Your task to perform on an android device: Go to notification settings Image 0: 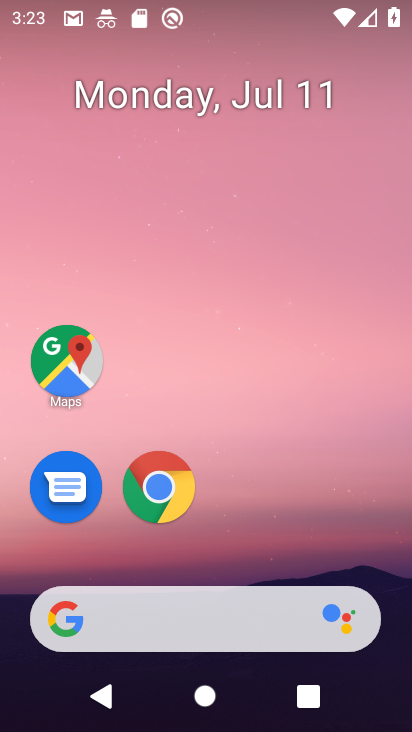
Step 0: drag from (179, 592) to (327, 51)
Your task to perform on an android device: Go to notification settings Image 1: 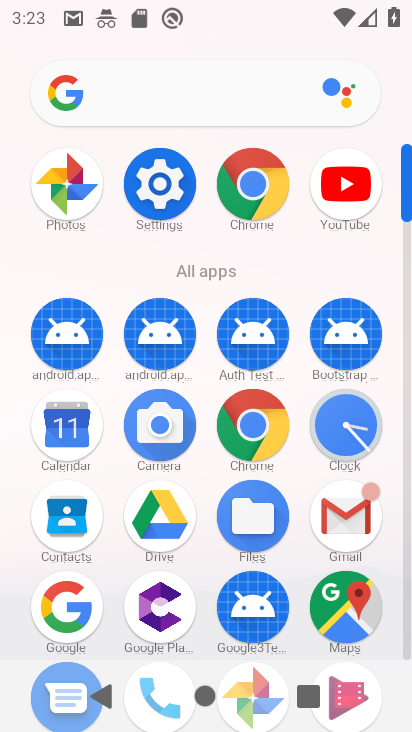
Step 1: click (164, 197)
Your task to perform on an android device: Go to notification settings Image 2: 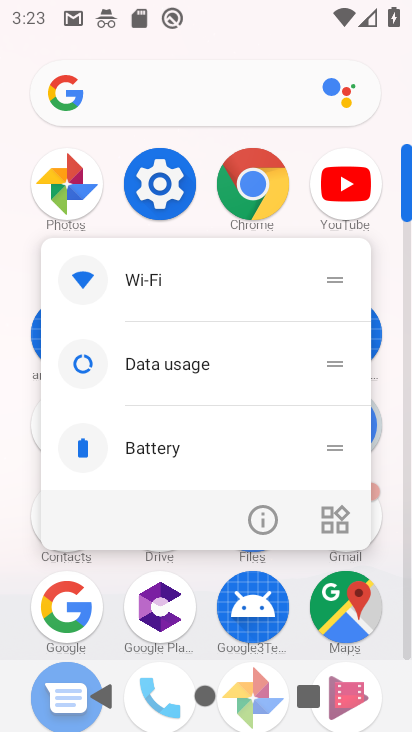
Step 2: click (156, 197)
Your task to perform on an android device: Go to notification settings Image 3: 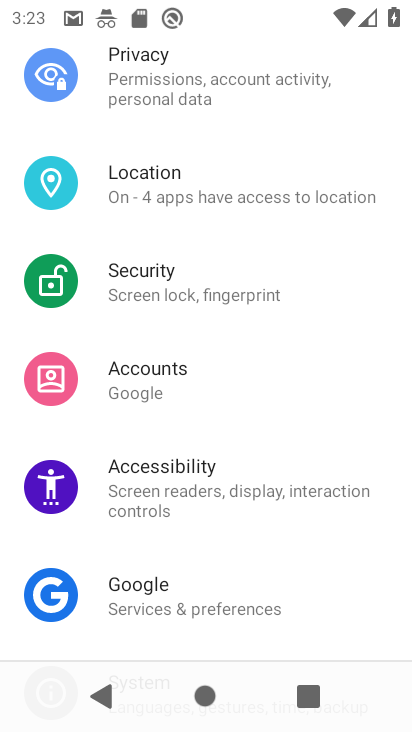
Step 3: drag from (287, 156) to (270, 622)
Your task to perform on an android device: Go to notification settings Image 4: 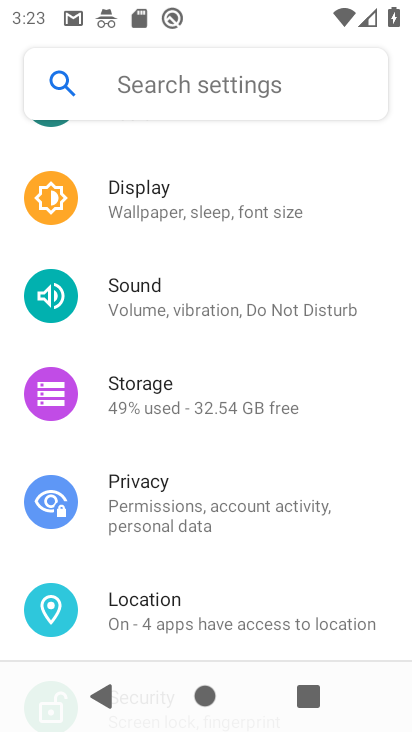
Step 4: drag from (276, 181) to (264, 605)
Your task to perform on an android device: Go to notification settings Image 5: 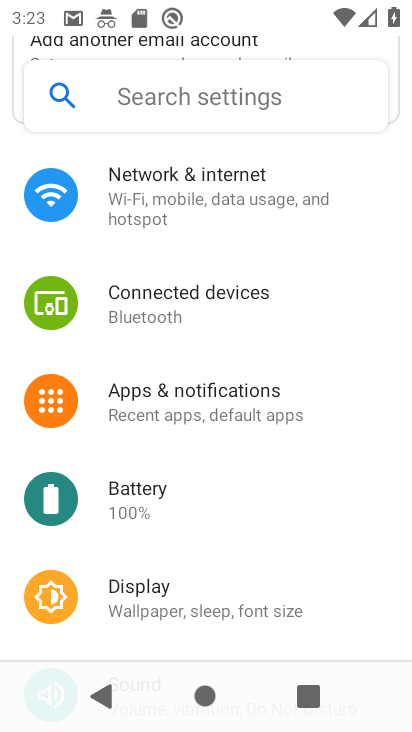
Step 5: click (261, 395)
Your task to perform on an android device: Go to notification settings Image 6: 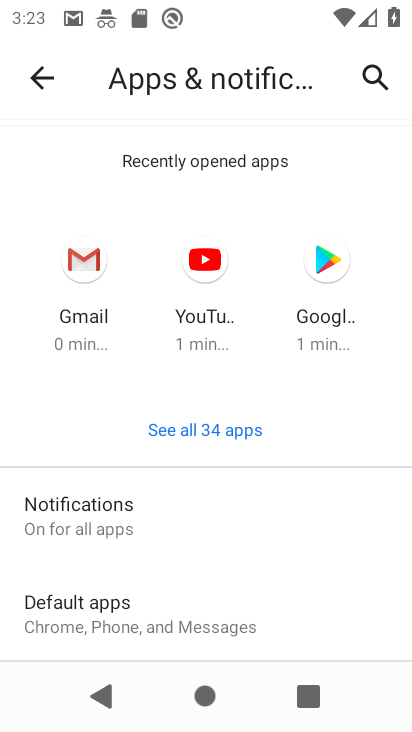
Step 6: click (112, 509)
Your task to perform on an android device: Go to notification settings Image 7: 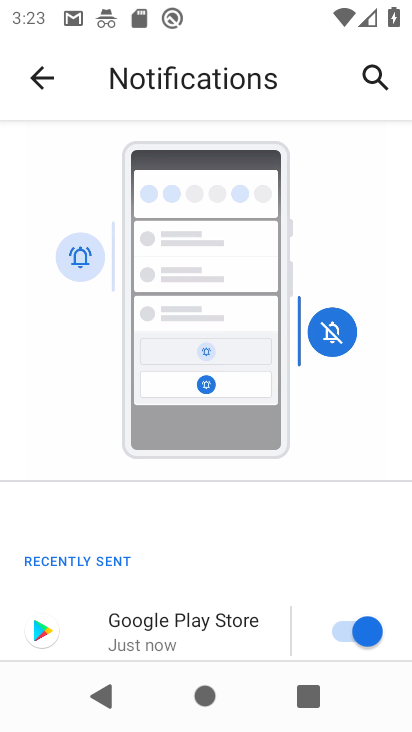
Step 7: task complete